Your task to perform on an android device: turn off priority inbox in the gmail app Image 0: 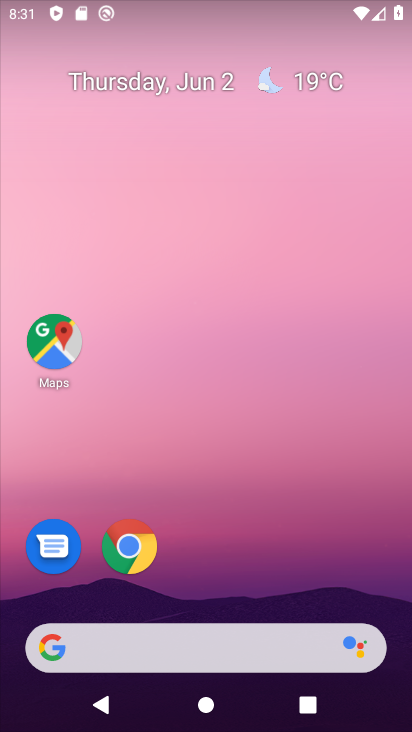
Step 0: drag from (289, 566) to (294, 0)
Your task to perform on an android device: turn off priority inbox in the gmail app Image 1: 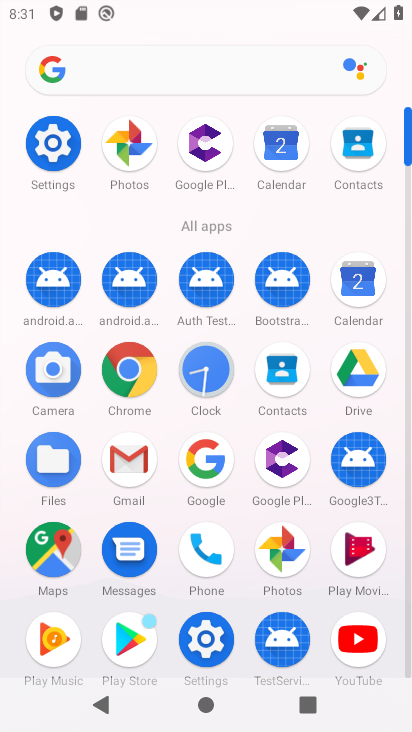
Step 1: click (119, 453)
Your task to perform on an android device: turn off priority inbox in the gmail app Image 2: 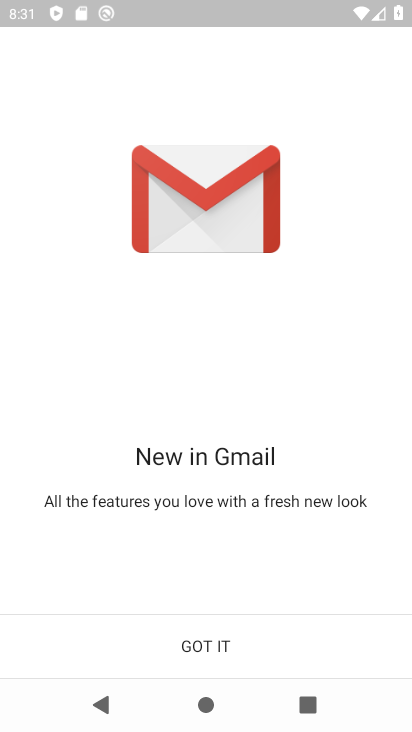
Step 2: click (210, 632)
Your task to perform on an android device: turn off priority inbox in the gmail app Image 3: 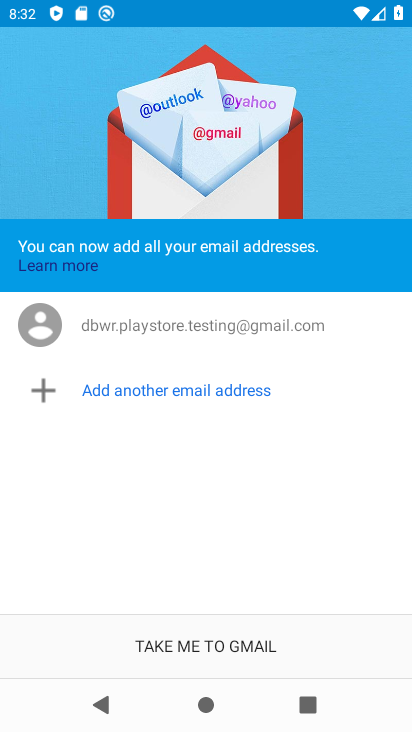
Step 3: click (210, 630)
Your task to perform on an android device: turn off priority inbox in the gmail app Image 4: 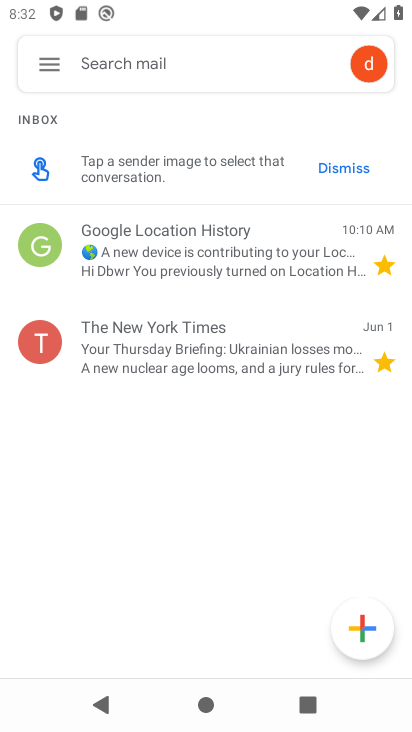
Step 4: click (53, 52)
Your task to perform on an android device: turn off priority inbox in the gmail app Image 5: 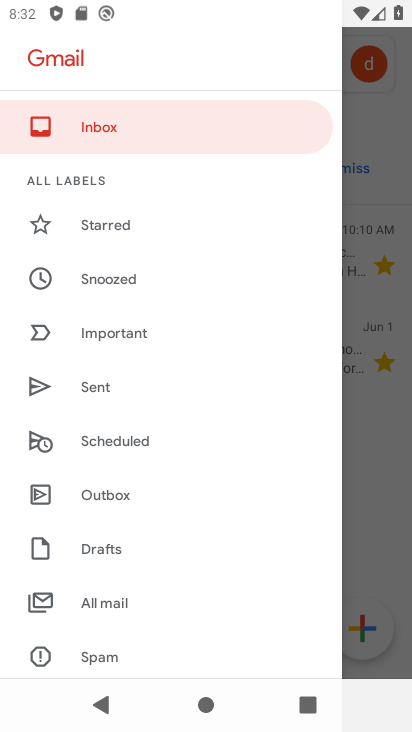
Step 5: drag from (109, 631) to (132, 188)
Your task to perform on an android device: turn off priority inbox in the gmail app Image 6: 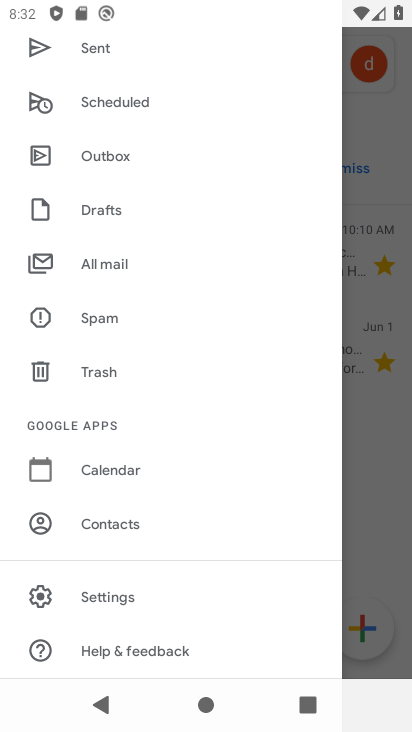
Step 6: click (78, 589)
Your task to perform on an android device: turn off priority inbox in the gmail app Image 7: 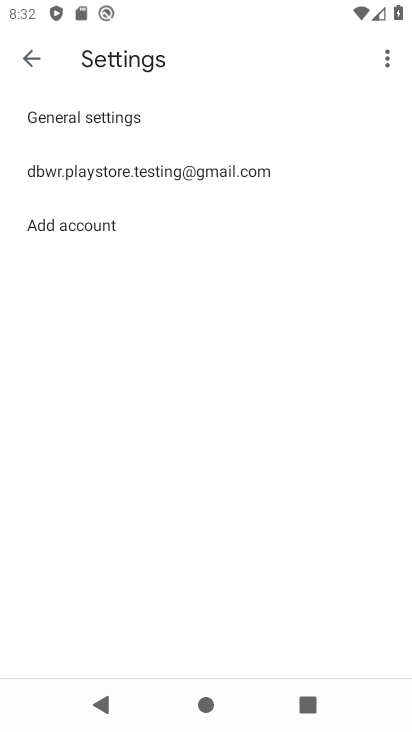
Step 7: click (125, 170)
Your task to perform on an android device: turn off priority inbox in the gmail app Image 8: 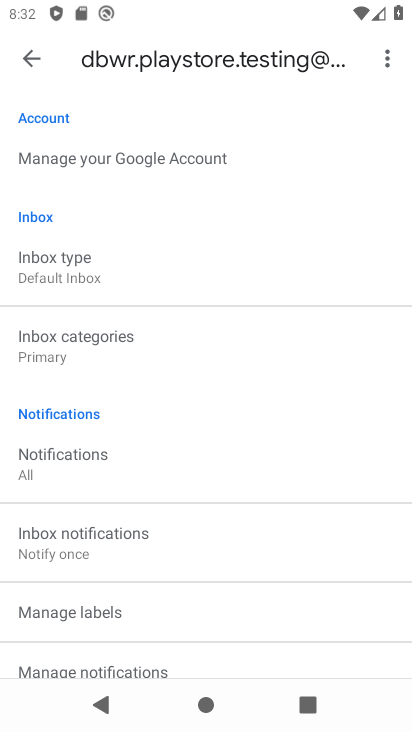
Step 8: click (69, 270)
Your task to perform on an android device: turn off priority inbox in the gmail app Image 9: 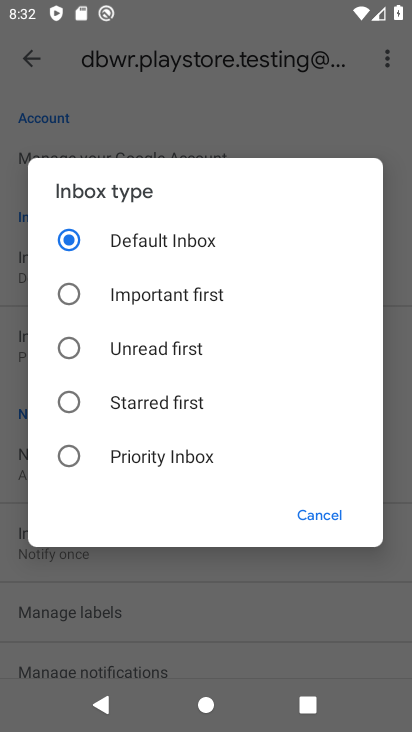
Step 9: click (141, 244)
Your task to perform on an android device: turn off priority inbox in the gmail app Image 10: 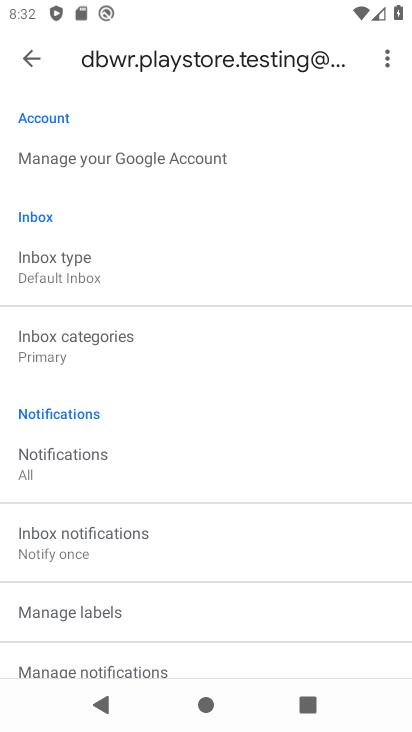
Step 10: task complete